Your task to perform on an android device: What's on my calendar today? Image 0: 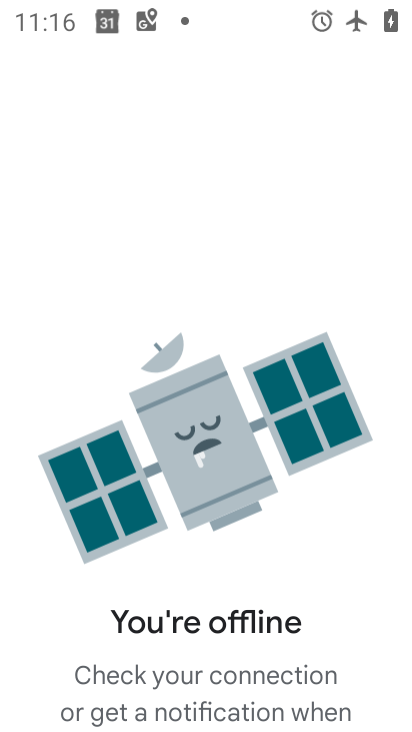
Step 0: press home button
Your task to perform on an android device: What's on my calendar today? Image 1: 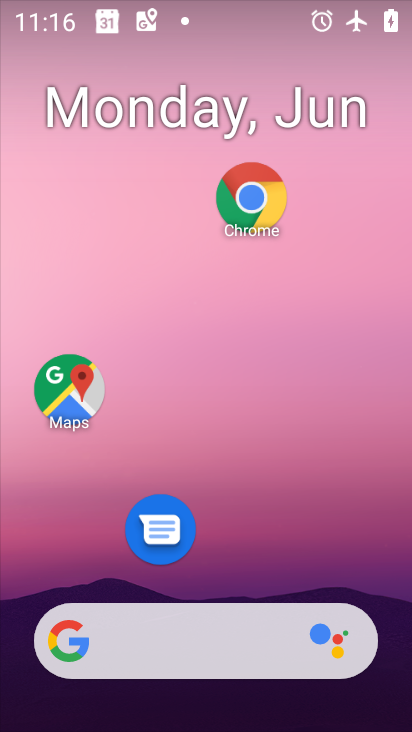
Step 1: drag from (218, 556) to (175, 204)
Your task to perform on an android device: What's on my calendar today? Image 2: 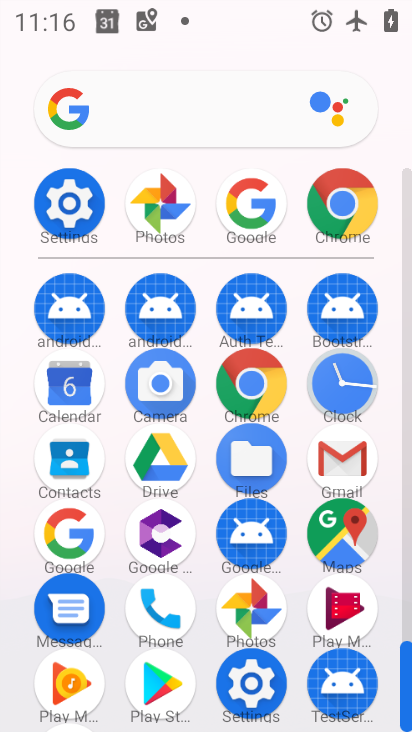
Step 2: click (75, 404)
Your task to perform on an android device: What's on my calendar today? Image 3: 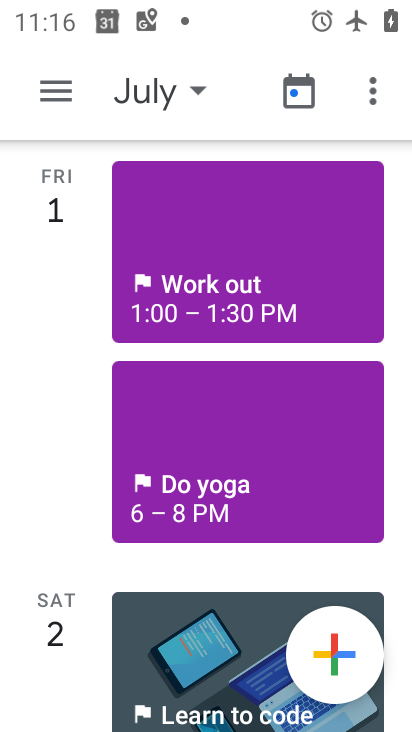
Step 3: click (188, 96)
Your task to perform on an android device: What's on my calendar today? Image 4: 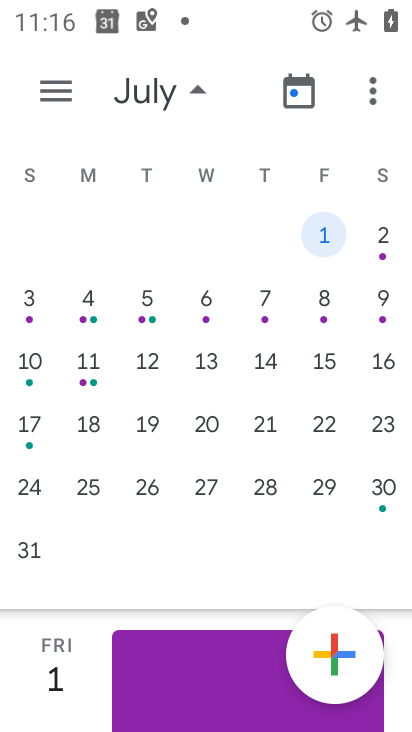
Step 4: drag from (60, 324) to (350, 324)
Your task to perform on an android device: What's on my calendar today? Image 5: 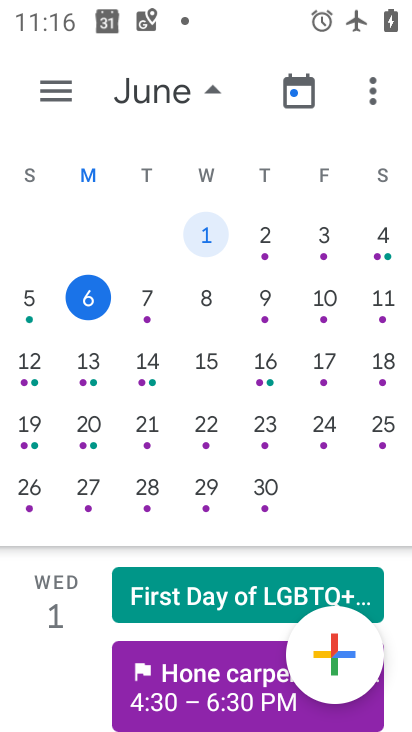
Step 5: click (96, 312)
Your task to perform on an android device: What's on my calendar today? Image 6: 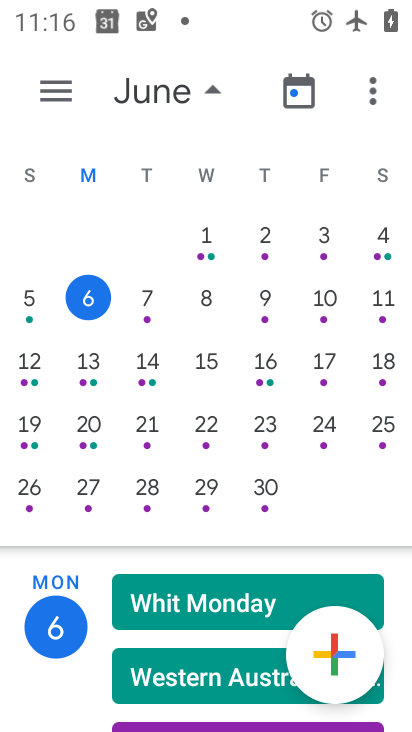
Step 6: task complete